Your task to perform on an android device: Find coffee shops on Maps Image 0: 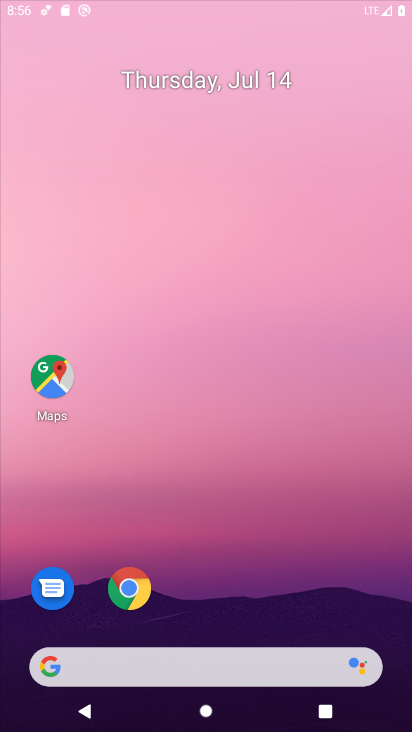
Step 0: drag from (325, 580) to (313, 474)
Your task to perform on an android device: Find coffee shops on Maps Image 1: 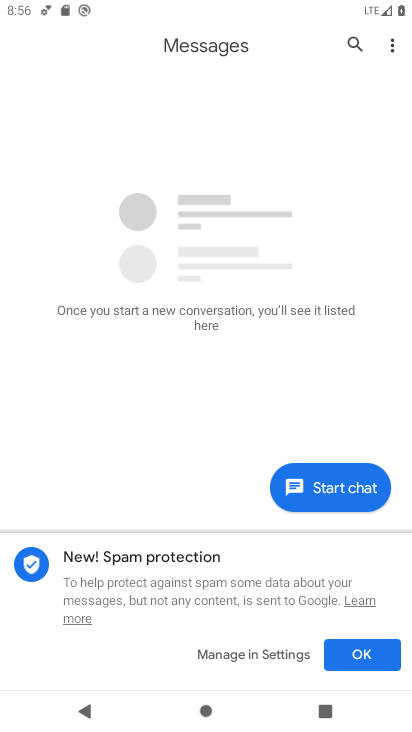
Step 1: press home button
Your task to perform on an android device: Find coffee shops on Maps Image 2: 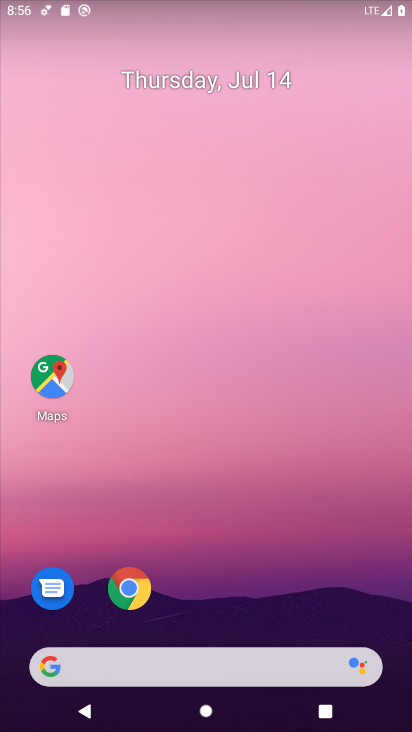
Step 2: drag from (306, 535) to (331, 76)
Your task to perform on an android device: Find coffee shops on Maps Image 3: 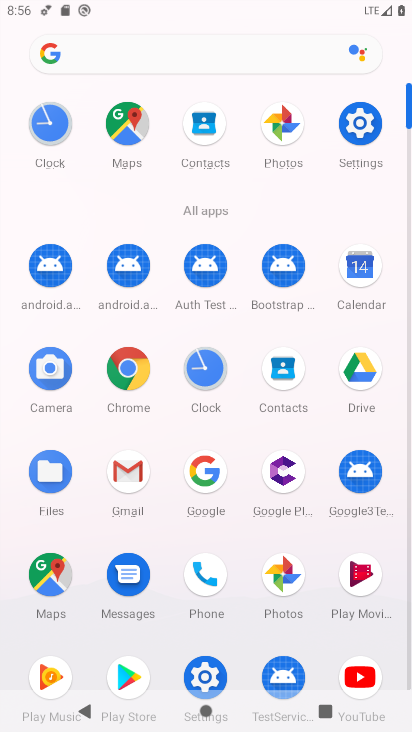
Step 3: click (41, 562)
Your task to perform on an android device: Find coffee shops on Maps Image 4: 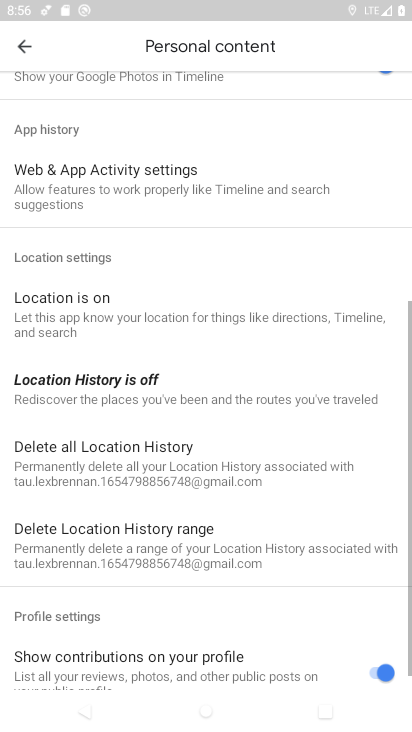
Step 4: click (22, 37)
Your task to perform on an android device: Find coffee shops on Maps Image 5: 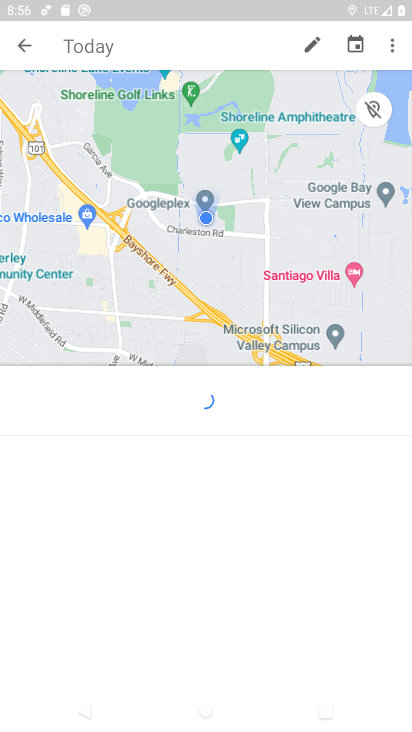
Step 5: click (22, 37)
Your task to perform on an android device: Find coffee shops on Maps Image 6: 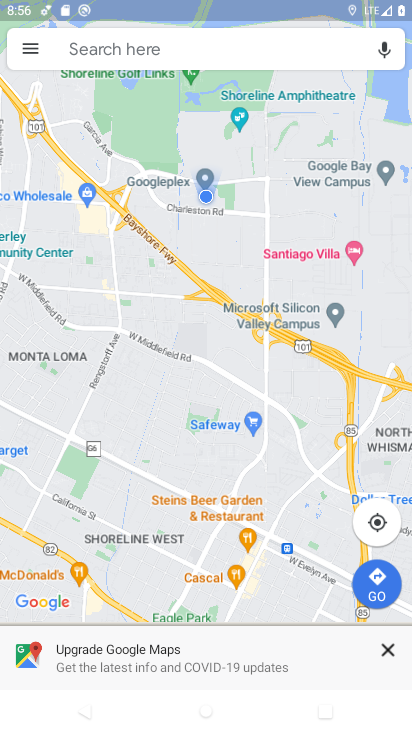
Step 6: click (99, 45)
Your task to perform on an android device: Find coffee shops on Maps Image 7: 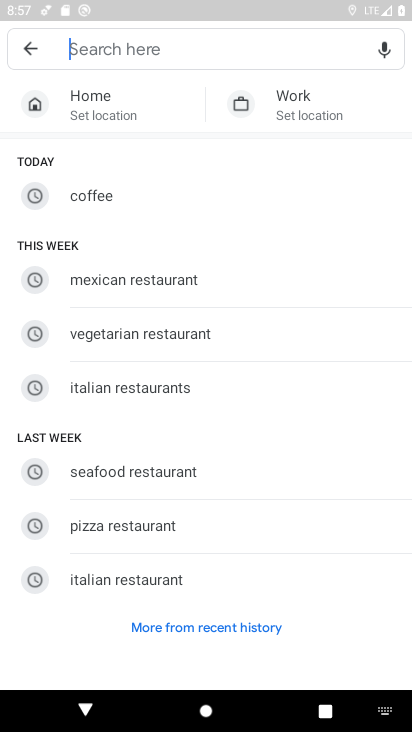
Step 7: type "coffee shop"
Your task to perform on an android device: Find coffee shops on Maps Image 8: 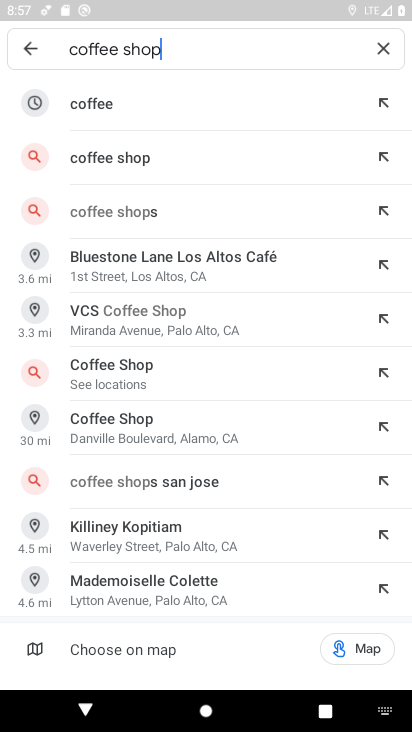
Step 8: click (99, 151)
Your task to perform on an android device: Find coffee shops on Maps Image 9: 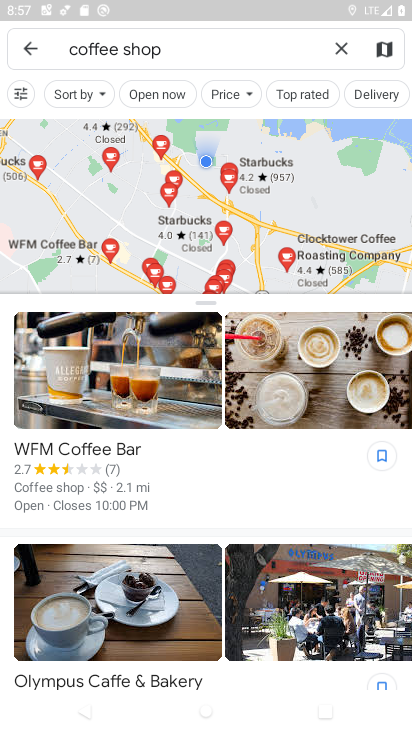
Step 9: task complete